Your task to perform on an android device: Go to Amazon Image 0: 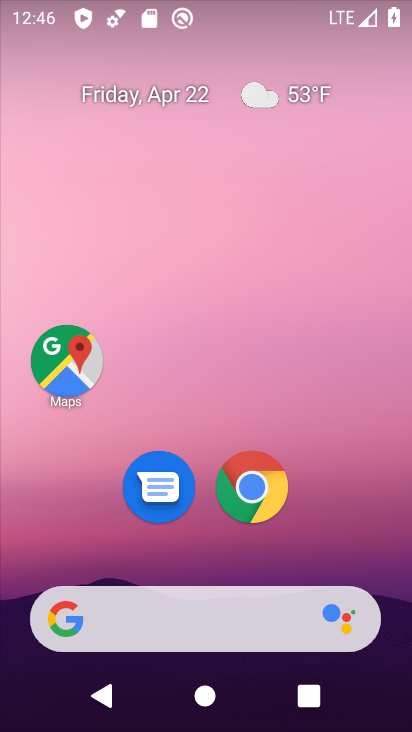
Step 0: click (268, 492)
Your task to perform on an android device: Go to Amazon Image 1: 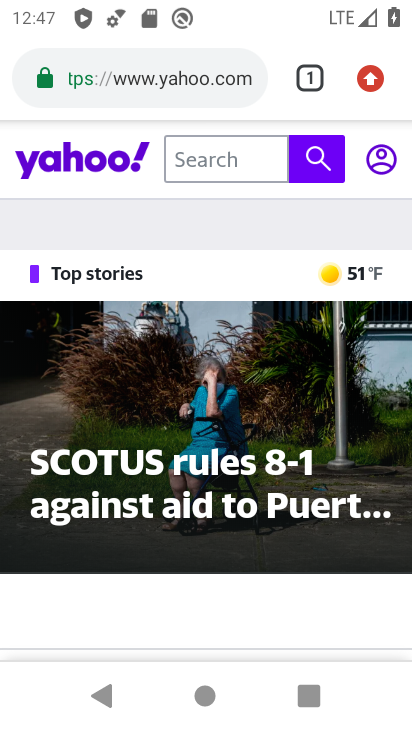
Step 1: click (376, 69)
Your task to perform on an android device: Go to Amazon Image 2: 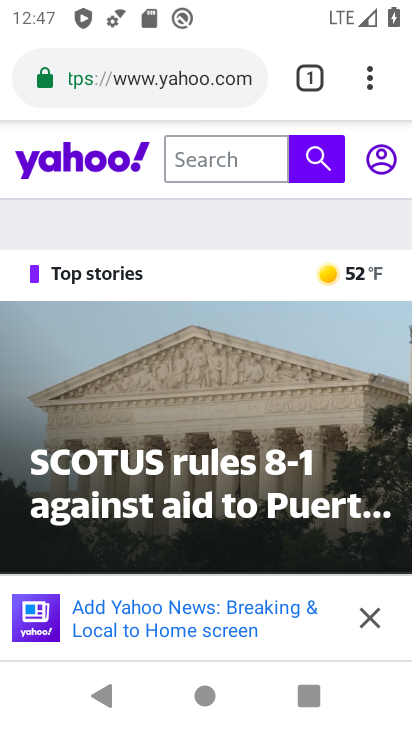
Step 2: click (322, 71)
Your task to perform on an android device: Go to Amazon Image 3: 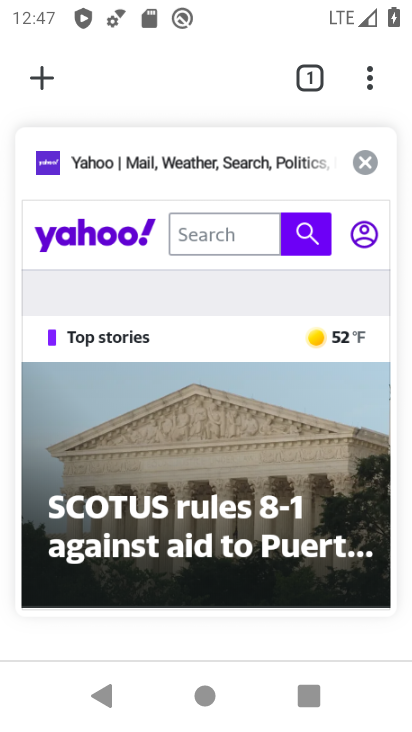
Step 3: click (48, 78)
Your task to perform on an android device: Go to Amazon Image 4: 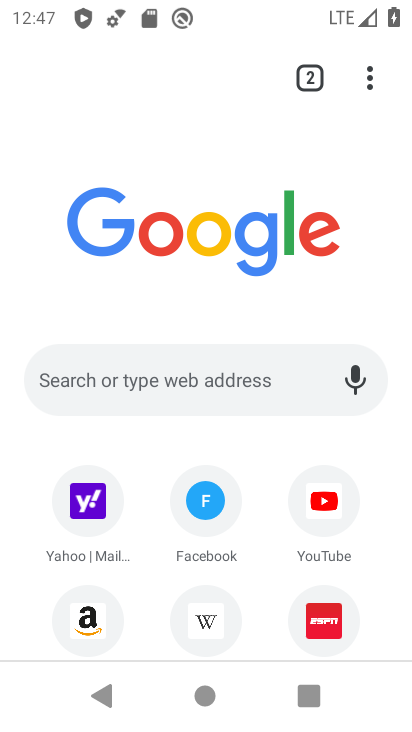
Step 4: click (111, 638)
Your task to perform on an android device: Go to Amazon Image 5: 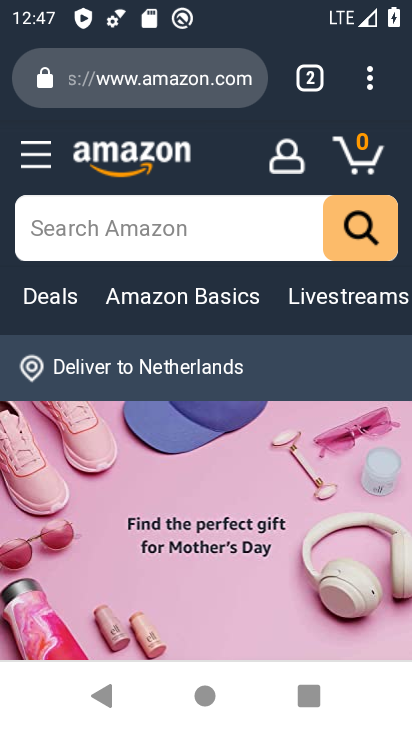
Step 5: task complete